Your task to perform on an android device: Clear the shopping cart on costco. Add "usb-c to usb-a" to the cart on costco Image 0: 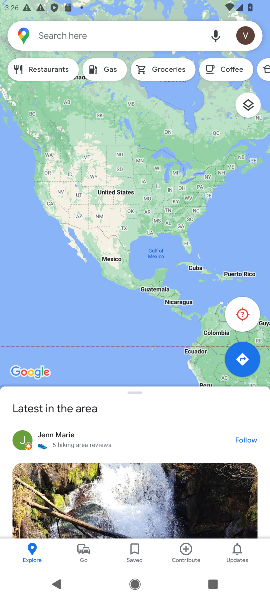
Step 0: press home button
Your task to perform on an android device: Clear the shopping cart on costco. Add "usb-c to usb-a" to the cart on costco Image 1: 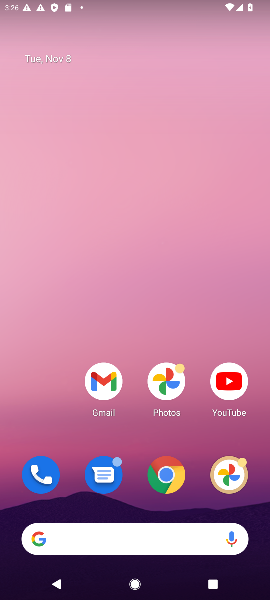
Step 1: drag from (150, 524) to (181, 127)
Your task to perform on an android device: Clear the shopping cart on costco. Add "usb-c to usb-a" to the cart on costco Image 2: 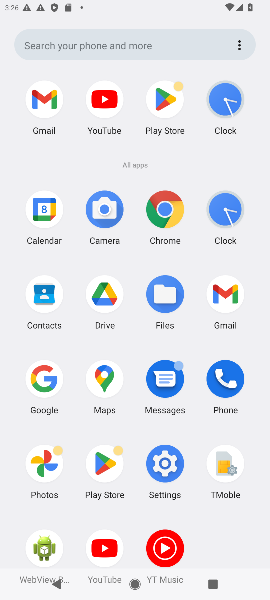
Step 2: click (41, 382)
Your task to perform on an android device: Clear the shopping cart on costco. Add "usb-c to usb-a" to the cart on costco Image 3: 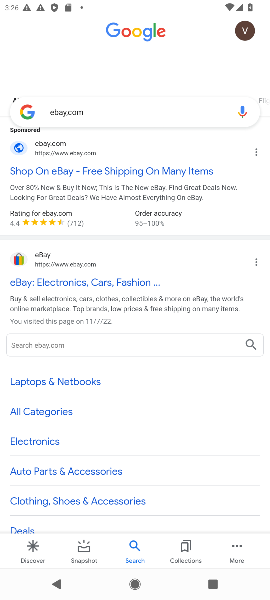
Step 3: click (146, 113)
Your task to perform on an android device: Clear the shopping cart on costco. Add "usb-c to usb-a" to the cart on costco Image 4: 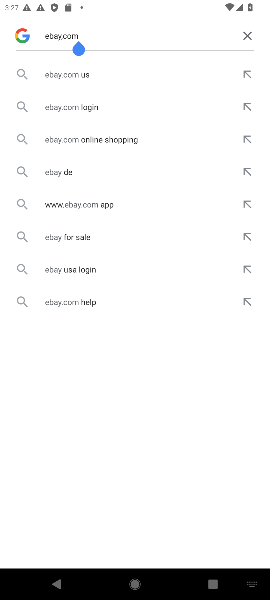
Step 4: click (244, 41)
Your task to perform on an android device: Clear the shopping cart on costco. Add "usb-c to usb-a" to the cart on costco Image 5: 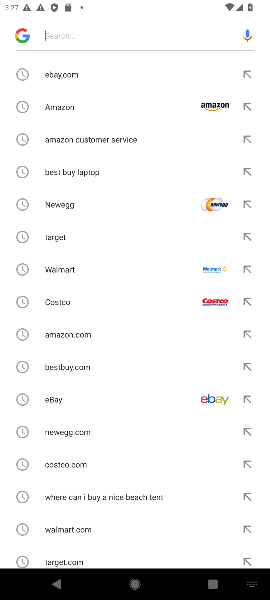
Step 5: click (97, 32)
Your task to perform on an android device: Clear the shopping cart on costco. Add "usb-c to usb-a" to the cart on costco Image 6: 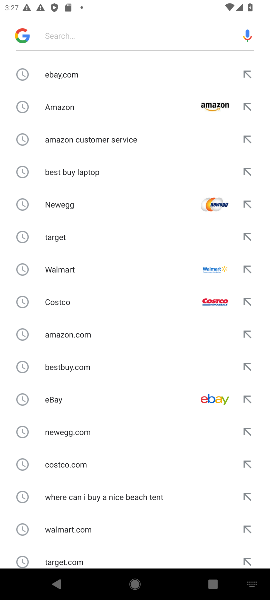
Step 6: type "costco "
Your task to perform on an android device: Clear the shopping cart on costco. Add "usb-c to usb-a" to the cart on costco Image 7: 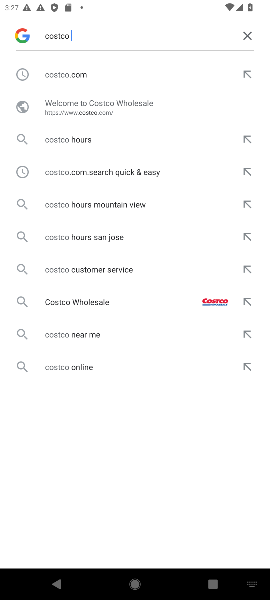
Step 7: click (78, 70)
Your task to perform on an android device: Clear the shopping cart on costco. Add "usb-c to usb-a" to the cart on costco Image 8: 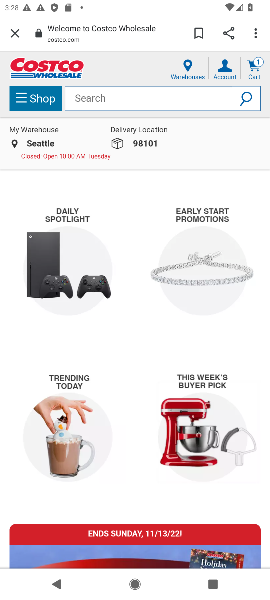
Step 8: click (105, 94)
Your task to perform on an android device: Clear the shopping cart on costco. Add "usb-c to usb-a" to the cart on costco Image 9: 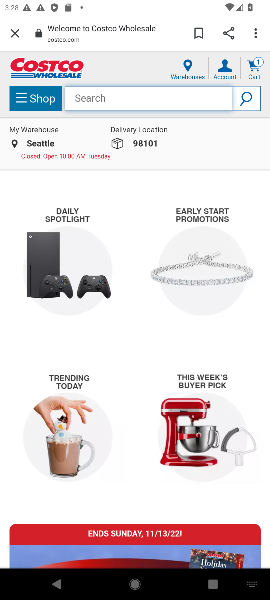
Step 9: type "usb-c to usb-a "
Your task to perform on an android device: Clear the shopping cart on costco. Add "usb-c to usb-a" to the cart on costco Image 10: 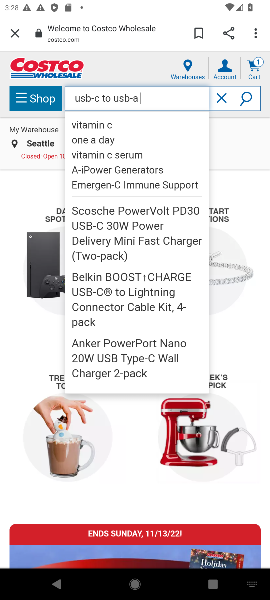
Step 10: click (243, 100)
Your task to perform on an android device: Clear the shopping cart on costco. Add "usb-c to usb-a" to the cart on costco Image 11: 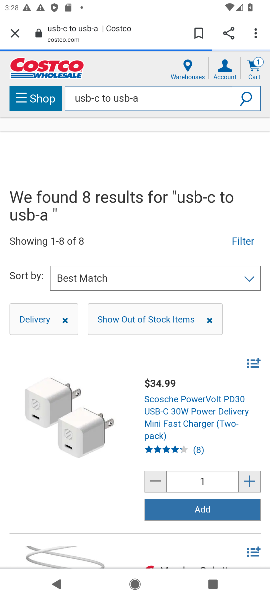
Step 11: drag from (157, 460) to (155, 170)
Your task to perform on an android device: Clear the shopping cart on costco. Add "usb-c to usb-a" to the cart on costco Image 12: 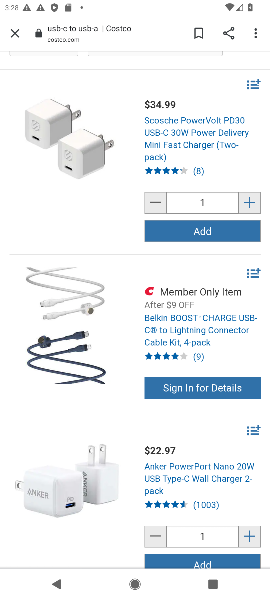
Step 12: drag from (130, 523) to (136, 244)
Your task to perform on an android device: Clear the shopping cart on costco. Add "usb-c to usb-a" to the cart on costco Image 13: 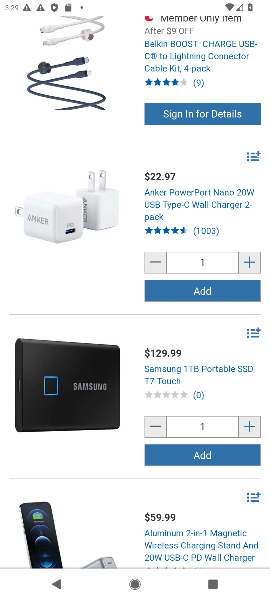
Step 13: drag from (103, 433) to (105, 124)
Your task to perform on an android device: Clear the shopping cart on costco. Add "usb-c to usb-a" to the cart on costco Image 14: 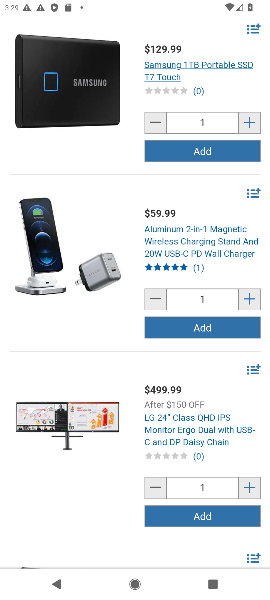
Step 14: drag from (107, 467) to (104, 115)
Your task to perform on an android device: Clear the shopping cart on costco. Add "usb-c to usb-a" to the cart on costco Image 15: 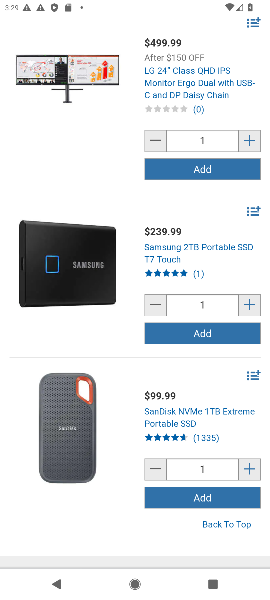
Step 15: drag from (89, 61) to (105, 516)
Your task to perform on an android device: Clear the shopping cart on costco. Add "usb-c to usb-a" to the cart on costco Image 16: 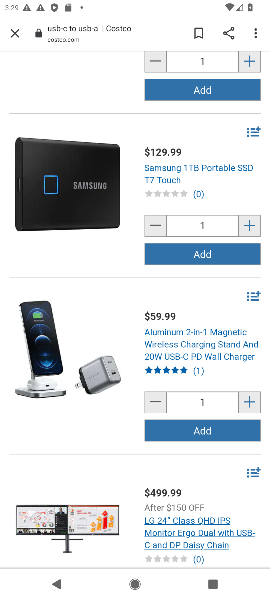
Step 16: drag from (111, 115) to (118, 550)
Your task to perform on an android device: Clear the shopping cart on costco. Add "usb-c to usb-a" to the cart on costco Image 17: 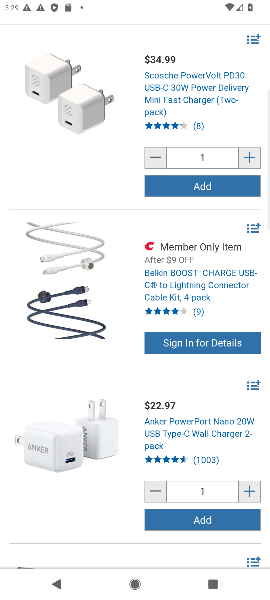
Step 17: drag from (108, 97) to (114, 475)
Your task to perform on an android device: Clear the shopping cart on costco. Add "usb-c to usb-a" to the cart on costco Image 18: 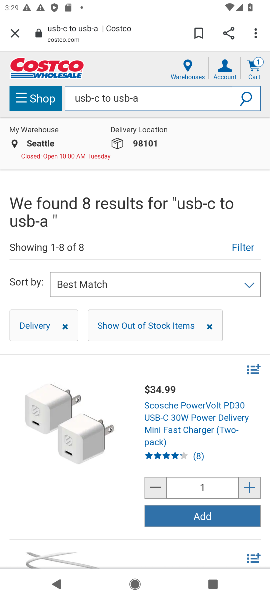
Step 18: click (252, 95)
Your task to perform on an android device: Clear the shopping cart on costco. Add "usb-c to usb-a" to the cart on costco Image 19: 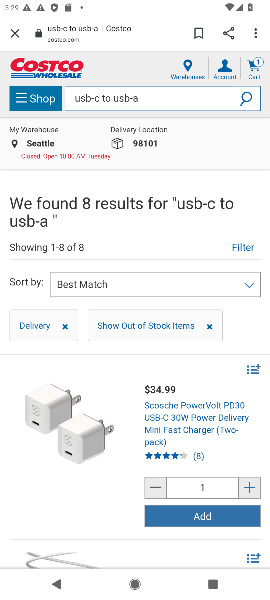
Step 19: click (150, 96)
Your task to perform on an android device: Clear the shopping cart on costco. Add "usb-c to usb-a" to the cart on costco Image 20: 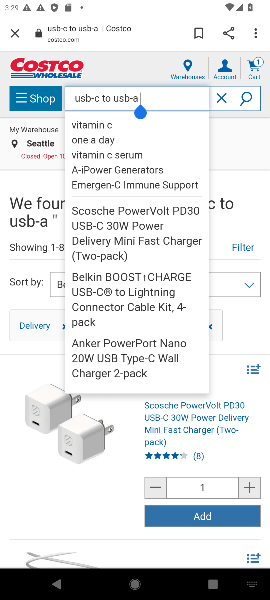
Step 20: click (215, 96)
Your task to perform on an android device: Clear the shopping cart on costco. Add "usb-c to usb-a" to the cart on costco Image 21: 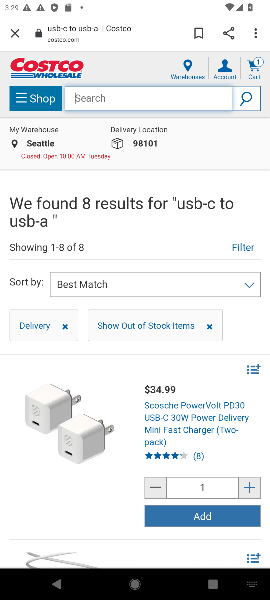
Step 21: click (127, 92)
Your task to perform on an android device: Clear the shopping cart on costco. Add "usb-c to usb-a" to the cart on costco Image 22: 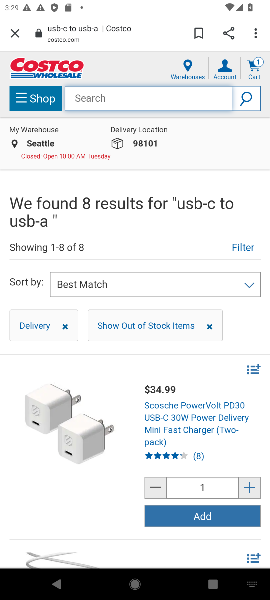
Step 22: type "usb"
Your task to perform on an android device: Clear the shopping cart on costco. Add "usb-c to usb-a" to the cart on costco Image 23: 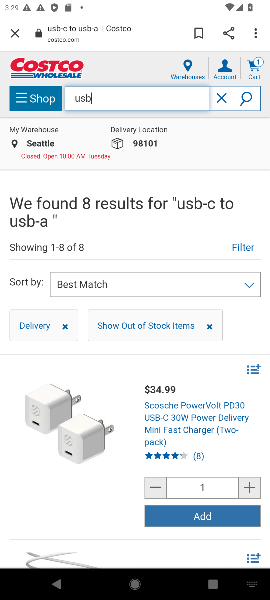
Step 23: click (246, 97)
Your task to perform on an android device: Clear the shopping cart on costco. Add "usb-c to usb-a" to the cart on costco Image 24: 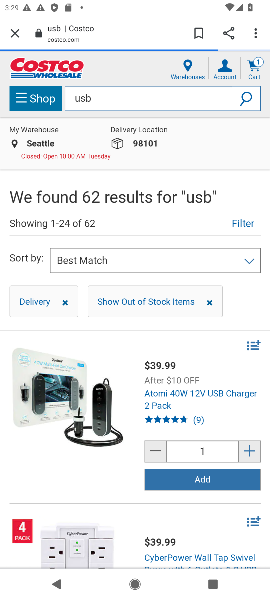
Step 24: task complete